Your task to perform on an android device: change timer sound Image 0: 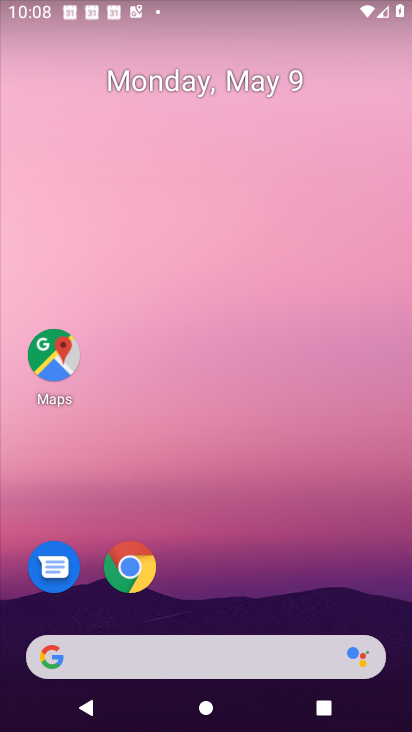
Step 0: drag from (172, 640) to (169, 231)
Your task to perform on an android device: change timer sound Image 1: 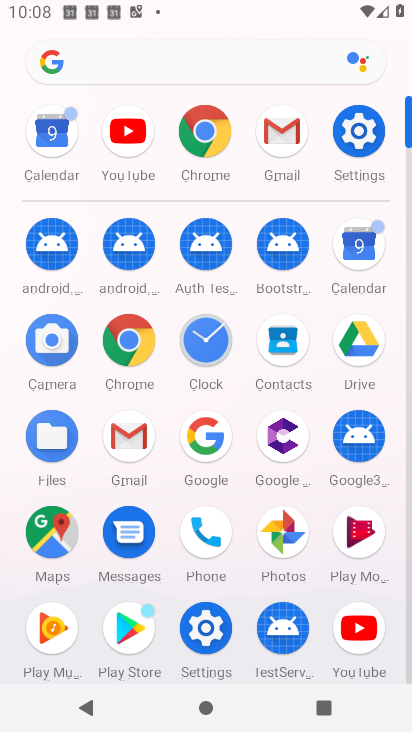
Step 1: click (350, 131)
Your task to perform on an android device: change timer sound Image 2: 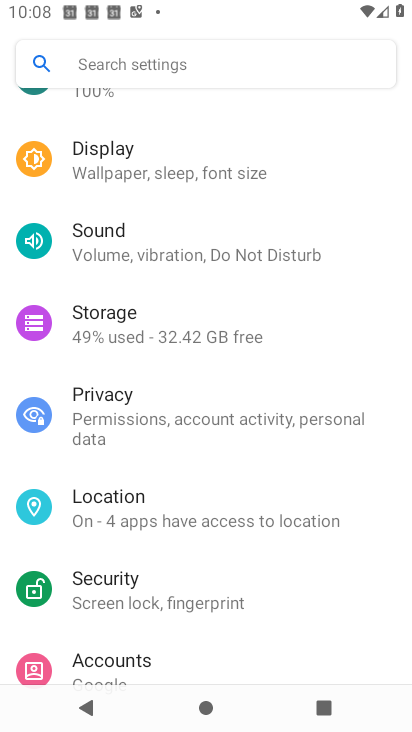
Step 2: press home button
Your task to perform on an android device: change timer sound Image 3: 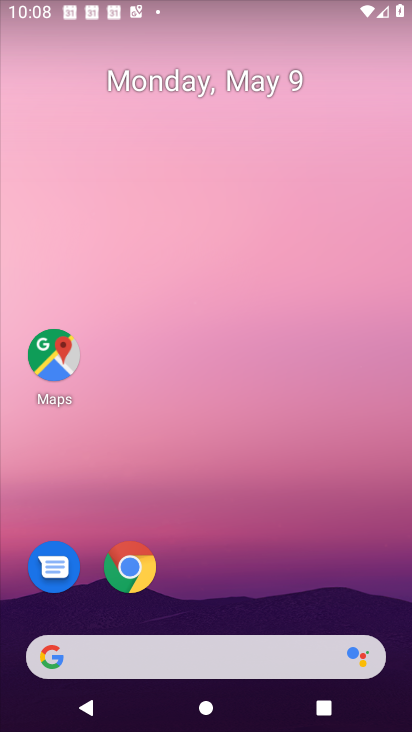
Step 3: drag from (218, 637) to (205, 248)
Your task to perform on an android device: change timer sound Image 4: 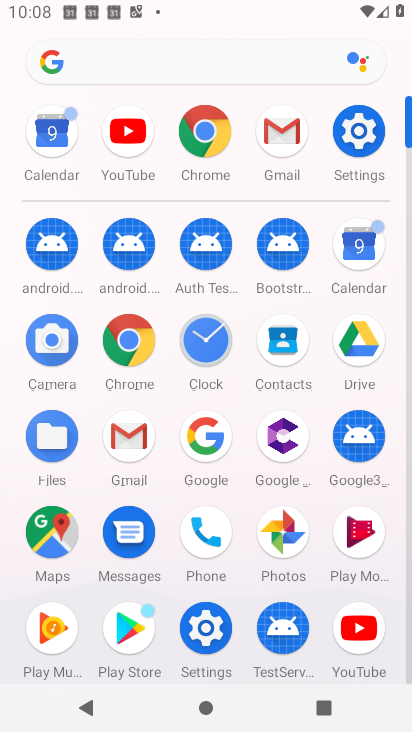
Step 4: click (202, 334)
Your task to perform on an android device: change timer sound Image 5: 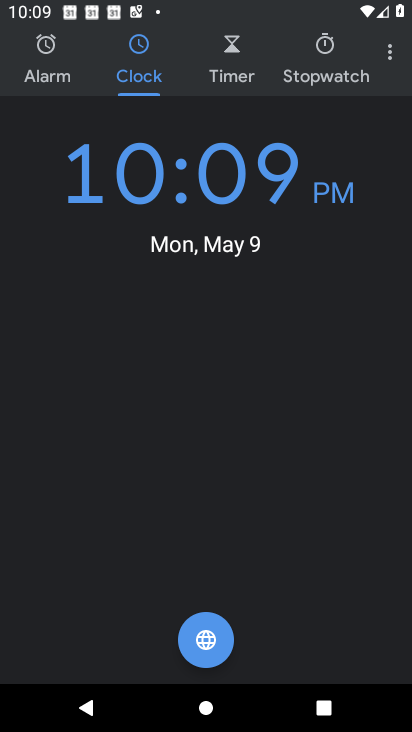
Step 5: click (386, 53)
Your task to perform on an android device: change timer sound Image 6: 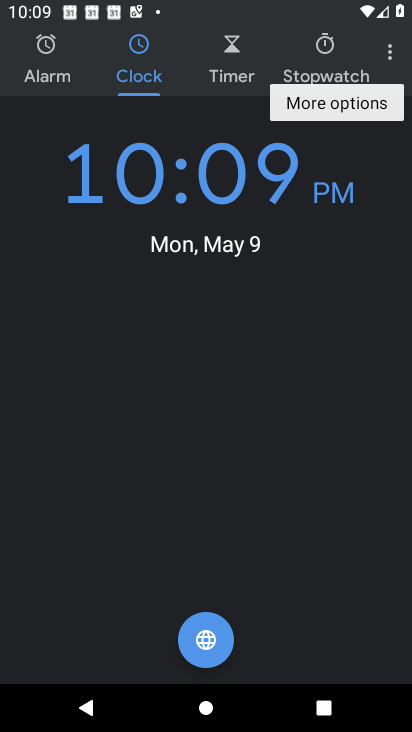
Step 6: click (385, 54)
Your task to perform on an android device: change timer sound Image 7: 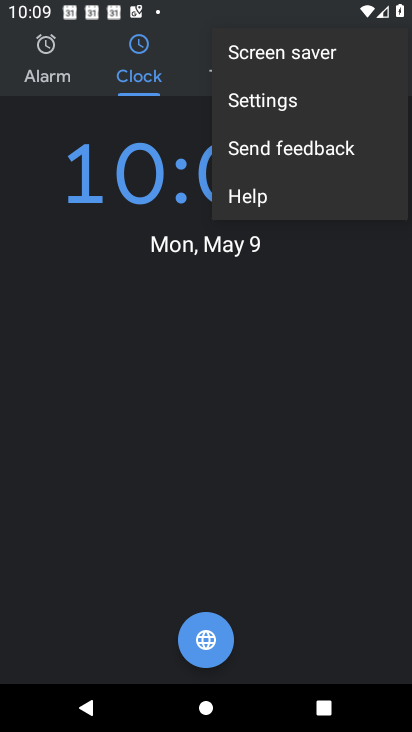
Step 7: click (282, 111)
Your task to perform on an android device: change timer sound Image 8: 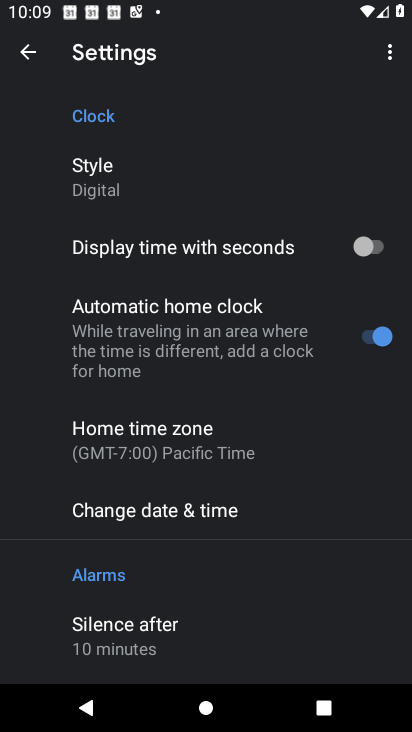
Step 8: drag from (228, 543) to (127, 31)
Your task to perform on an android device: change timer sound Image 9: 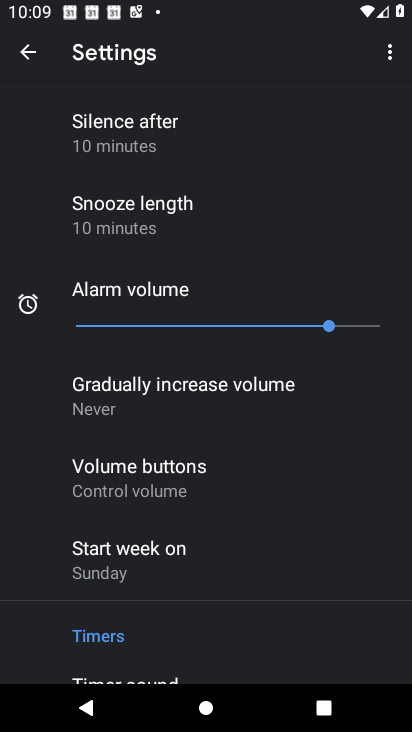
Step 9: drag from (212, 591) to (225, 83)
Your task to perform on an android device: change timer sound Image 10: 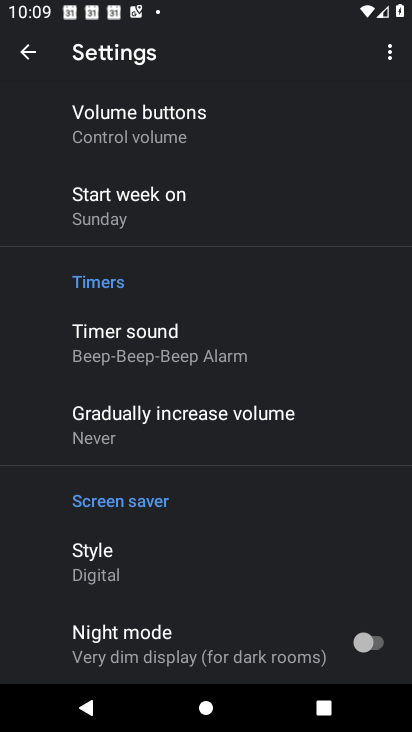
Step 10: click (164, 347)
Your task to perform on an android device: change timer sound Image 11: 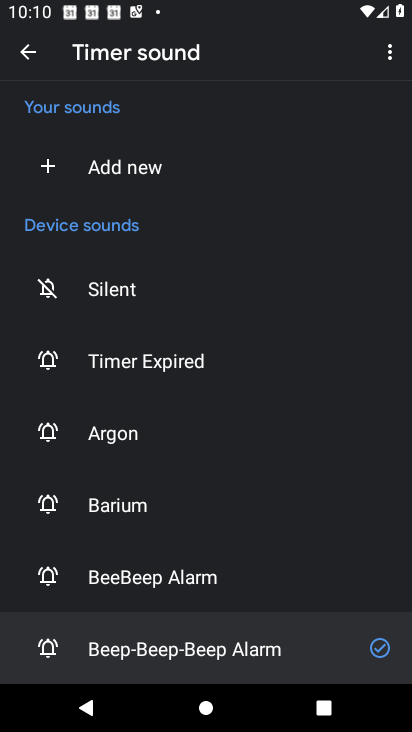
Step 11: drag from (155, 559) to (99, 170)
Your task to perform on an android device: change timer sound Image 12: 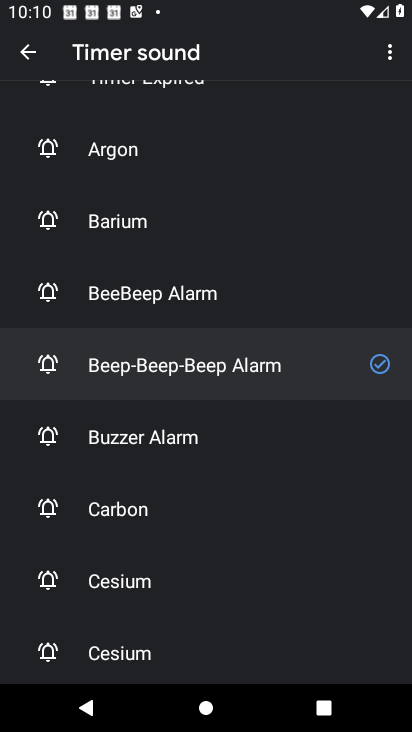
Step 12: click (167, 457)
Your task to perform on an android device: change timer sound Image 13: 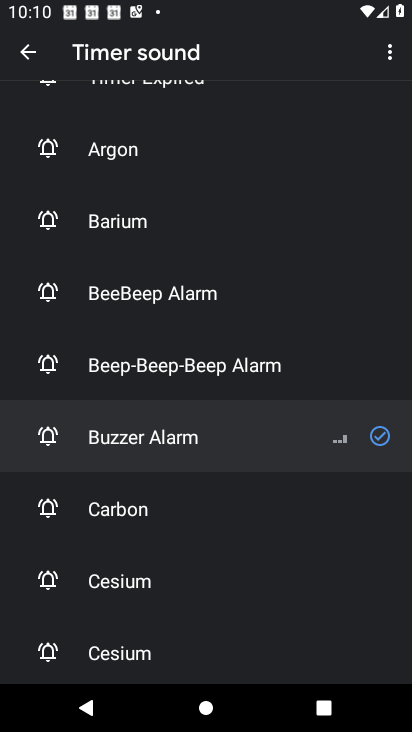
Step 13: task complete